Your task to perform on an android device: Open Youtube and go to "Your channel" Image 0: 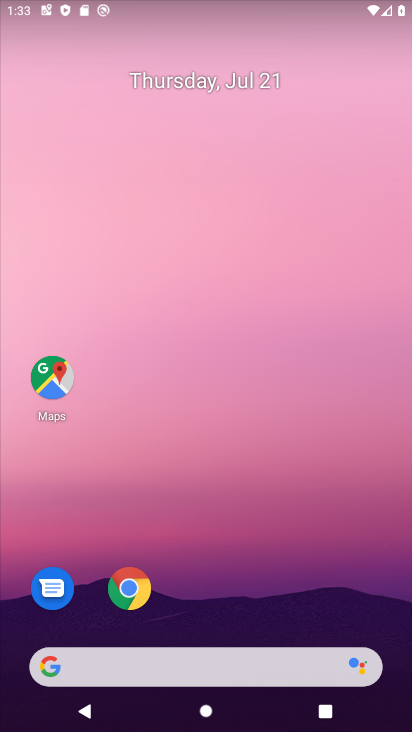
Step 0: drag from (217, 617) to (133, 59)
Your task to perform on an android device: Open Youtube and go to "Your channel" Image 1: 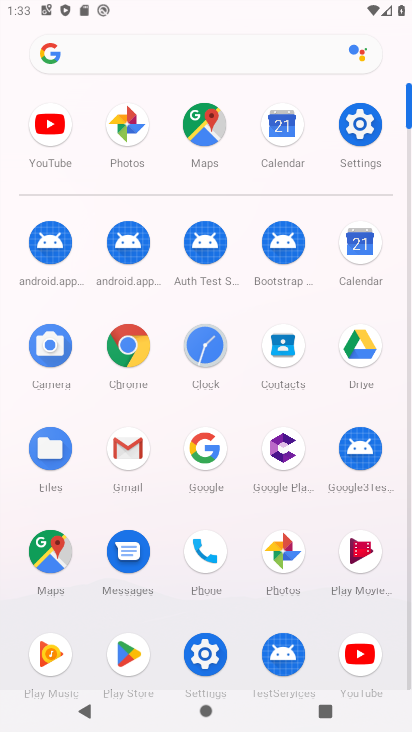
Step 1: click (368, 656)
Your task to perform on an android device: Open Youtube and go to "Your channel" Image 2: 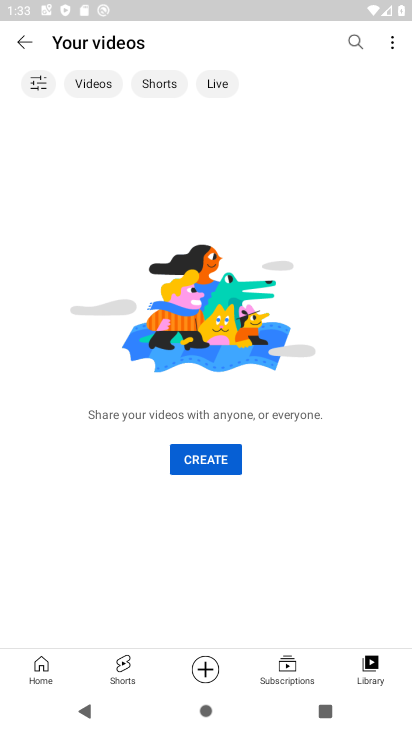
Step 2: click (390, 47)
Your task to perform on an android device: Open Youtube and go to "Your channel" Image 3: 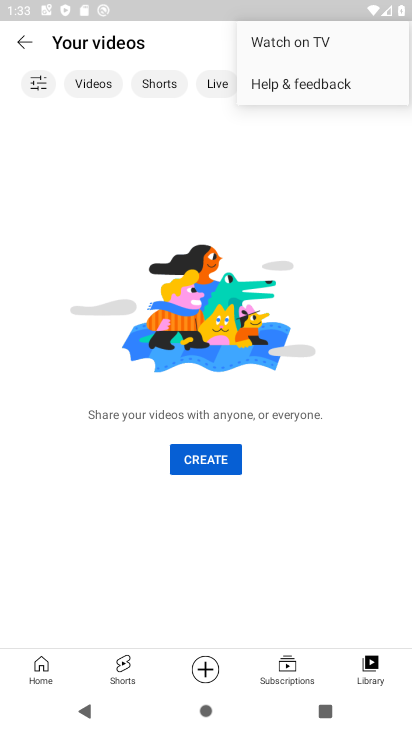
Step 3: click (344, 254)
Your task to perform on an android device: Open Youtube and go to "Your channel" Image 4: 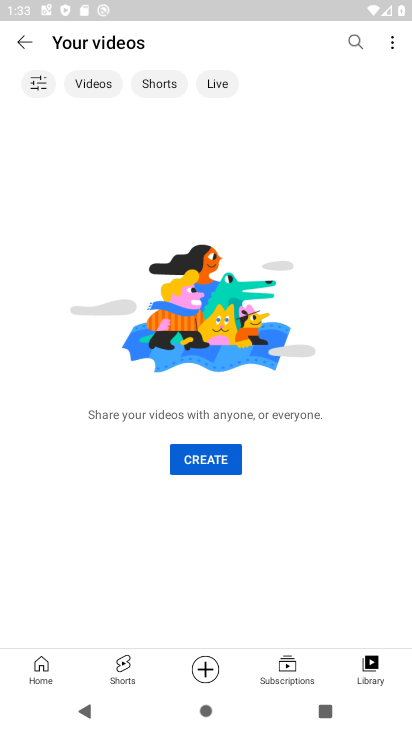
Step 4: click (374, 674)
Your task to perform on an android device: Open Youtube and go to "Your channel" Image 5: 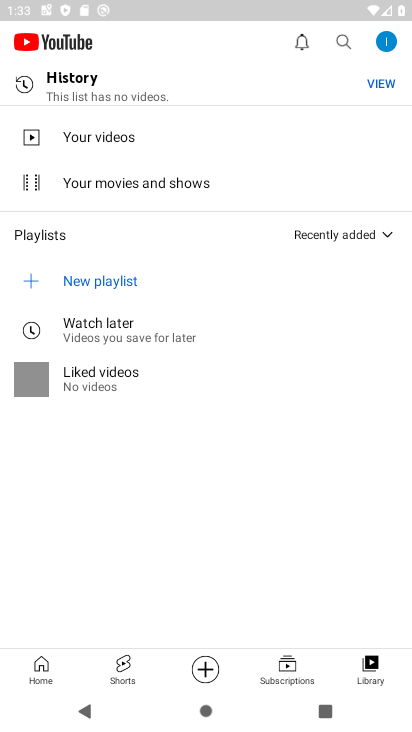
Step 5: click (385, 42)
Your task to perform on an android device: Open Youtube and go to "Your channel" Image 6: 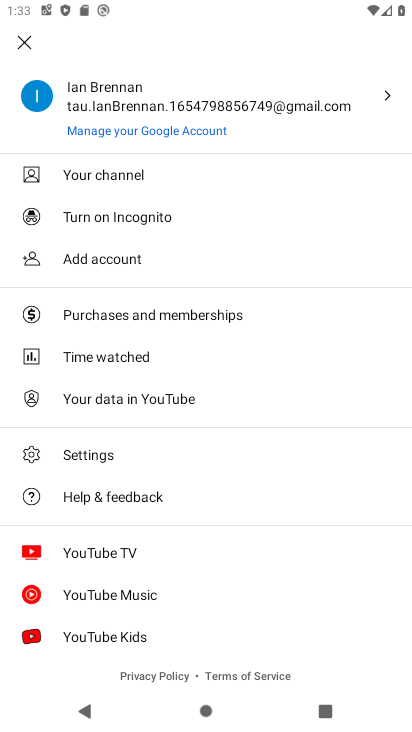
Step 6: click (80, 171)
Your task to perform on an android device: Open Youtube and go to "Your channel" Image 7: 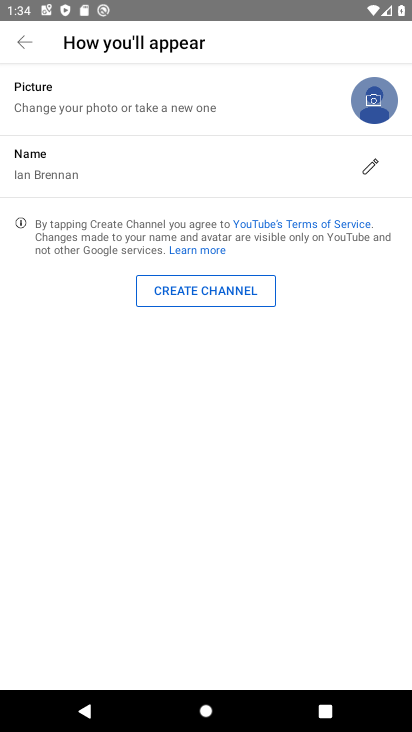
Step 7: task complete